Your task to perform on an android device: snooze an email in the gmail app Image 0: 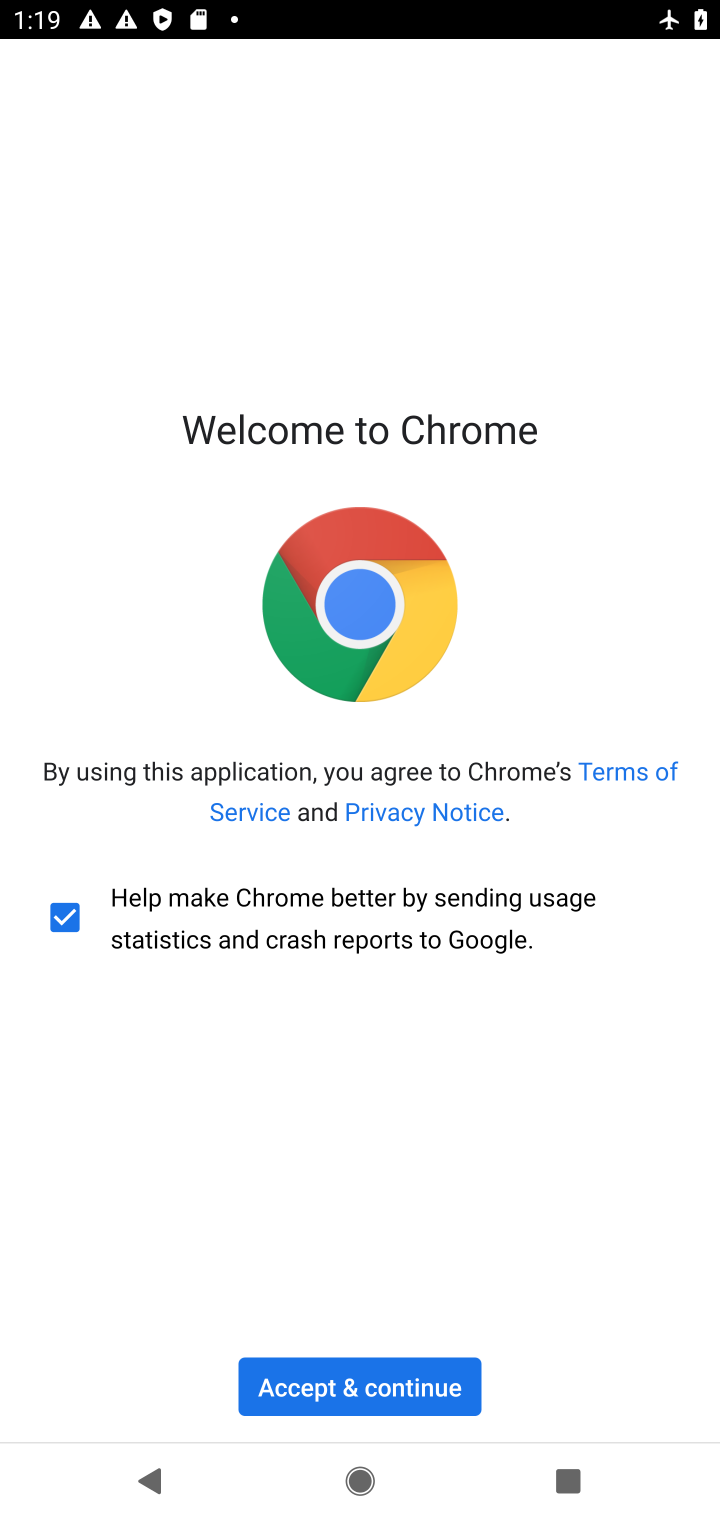
Step 0: press home button
Your task to perform on an android device: snooze an email in the gmail app Image 1: 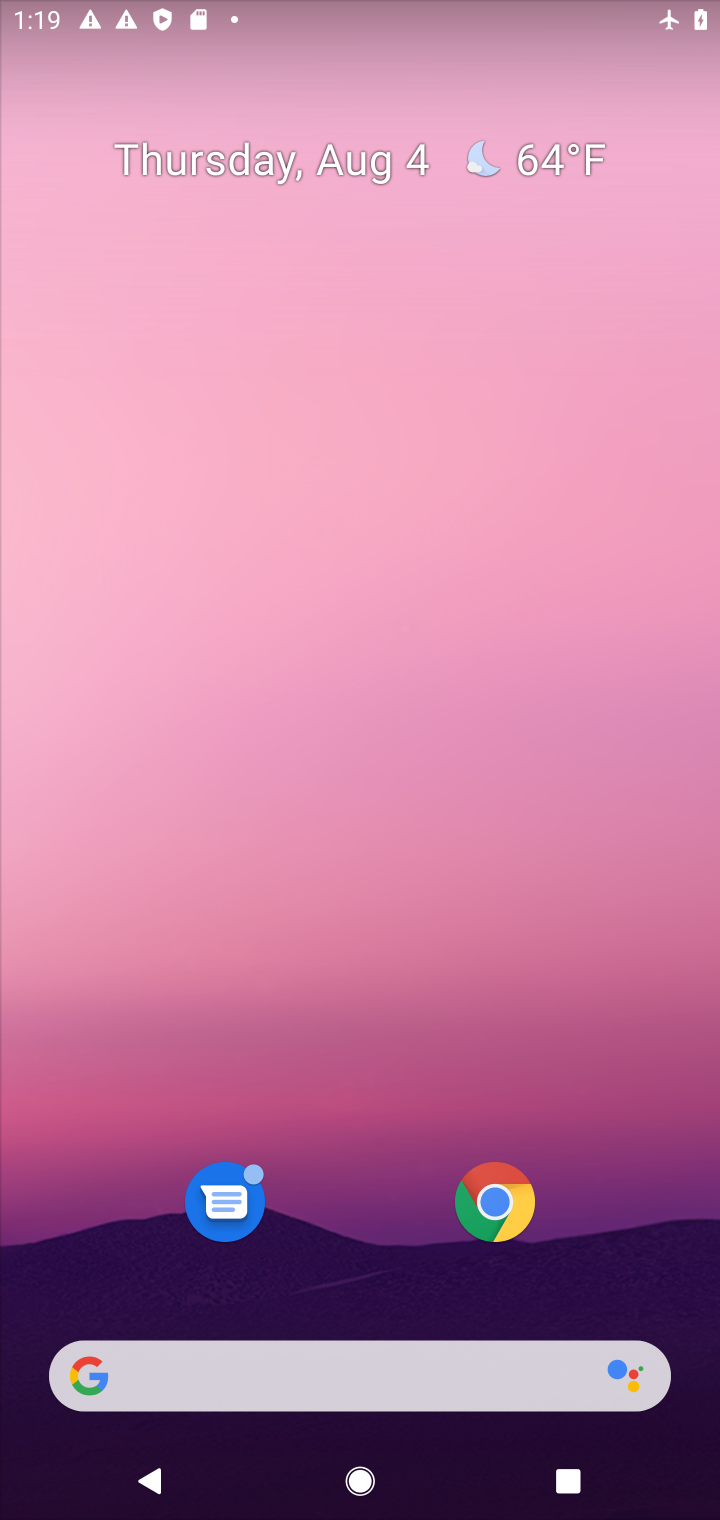
Step 1: drag from (551, 857) to (410, 254)
Your task to perform on an android device: snooze an email in the gmail app Image 2: 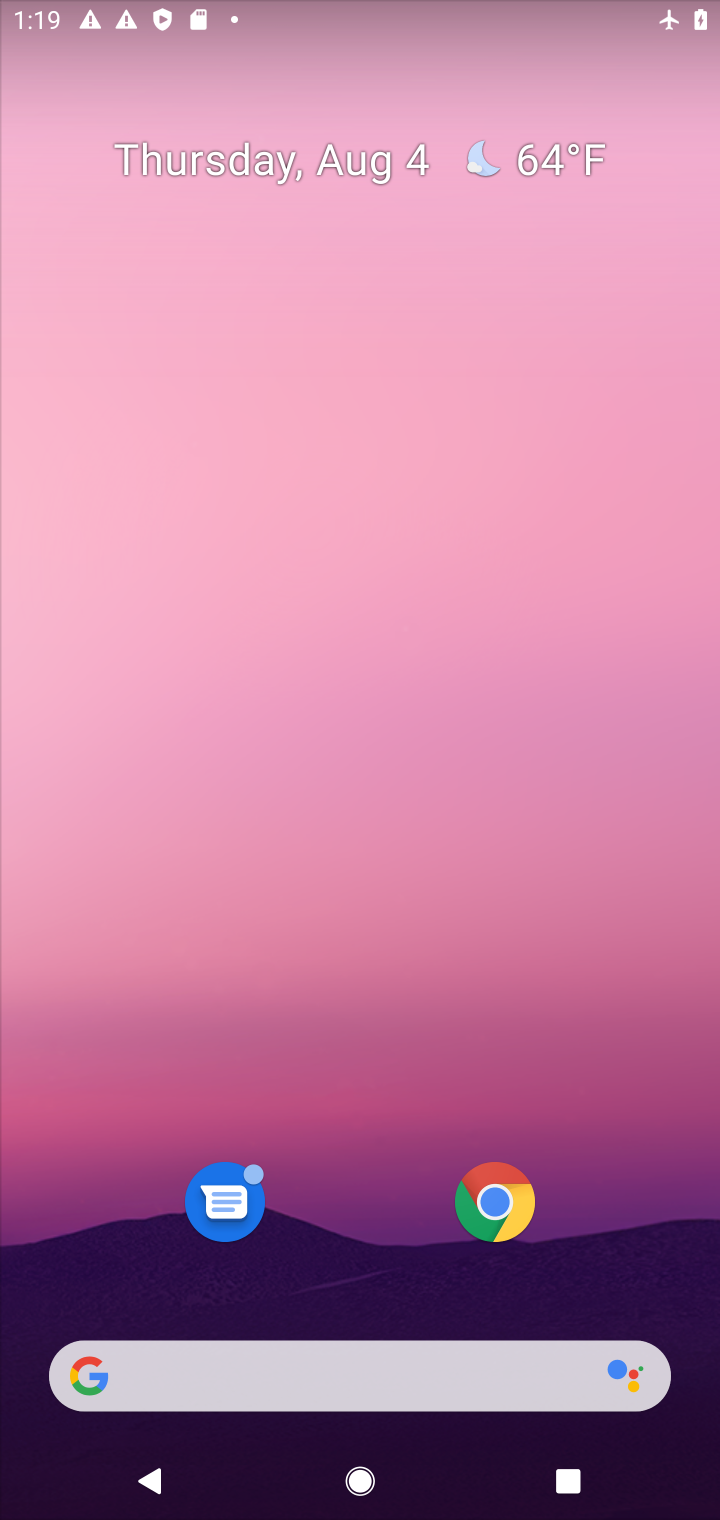
Step 2: drag from (674, 1281) to (385, 166)
Your task to perform on an android device: snooze an email in the gmail app Image 3: 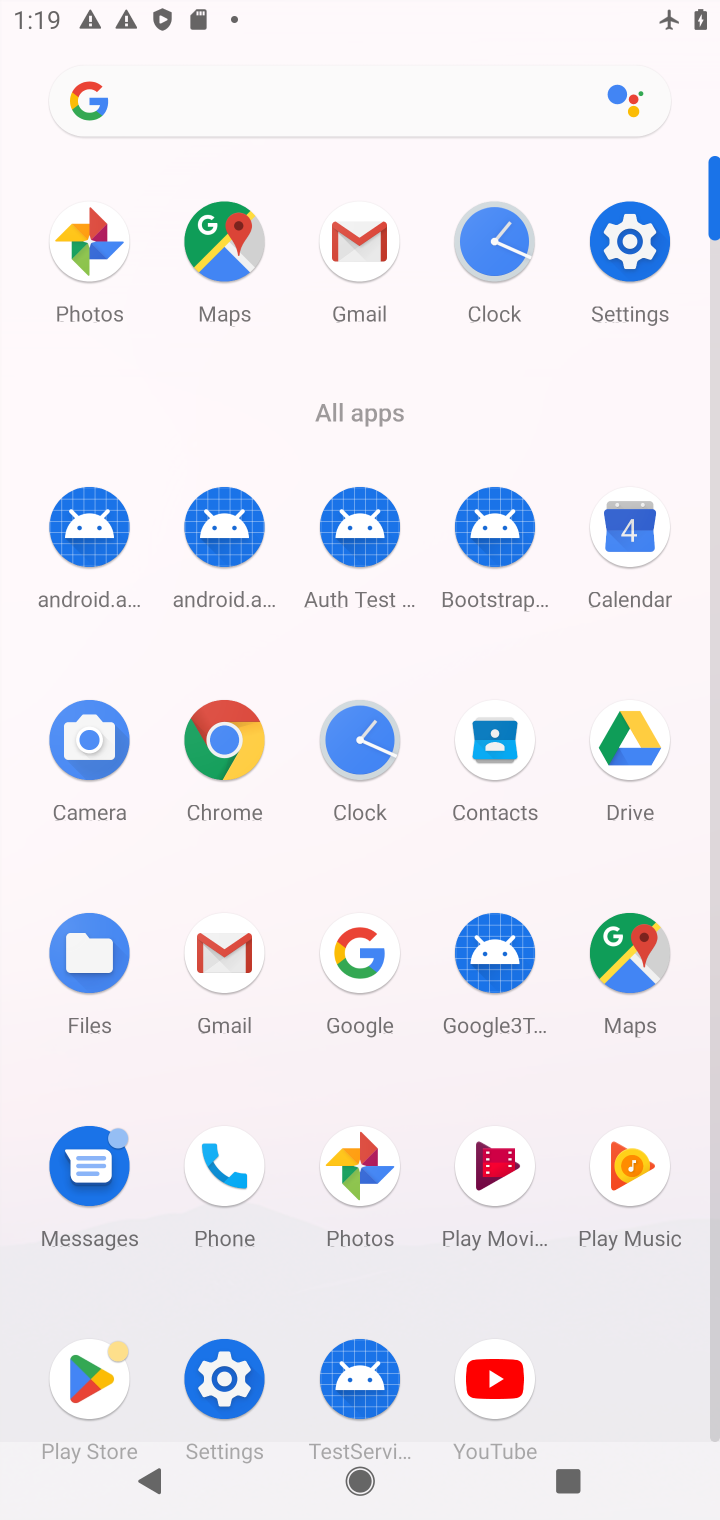
Step 3: click (350, 262)
Your task to perform on an android device: snooze an email in the gmail app Image 4: 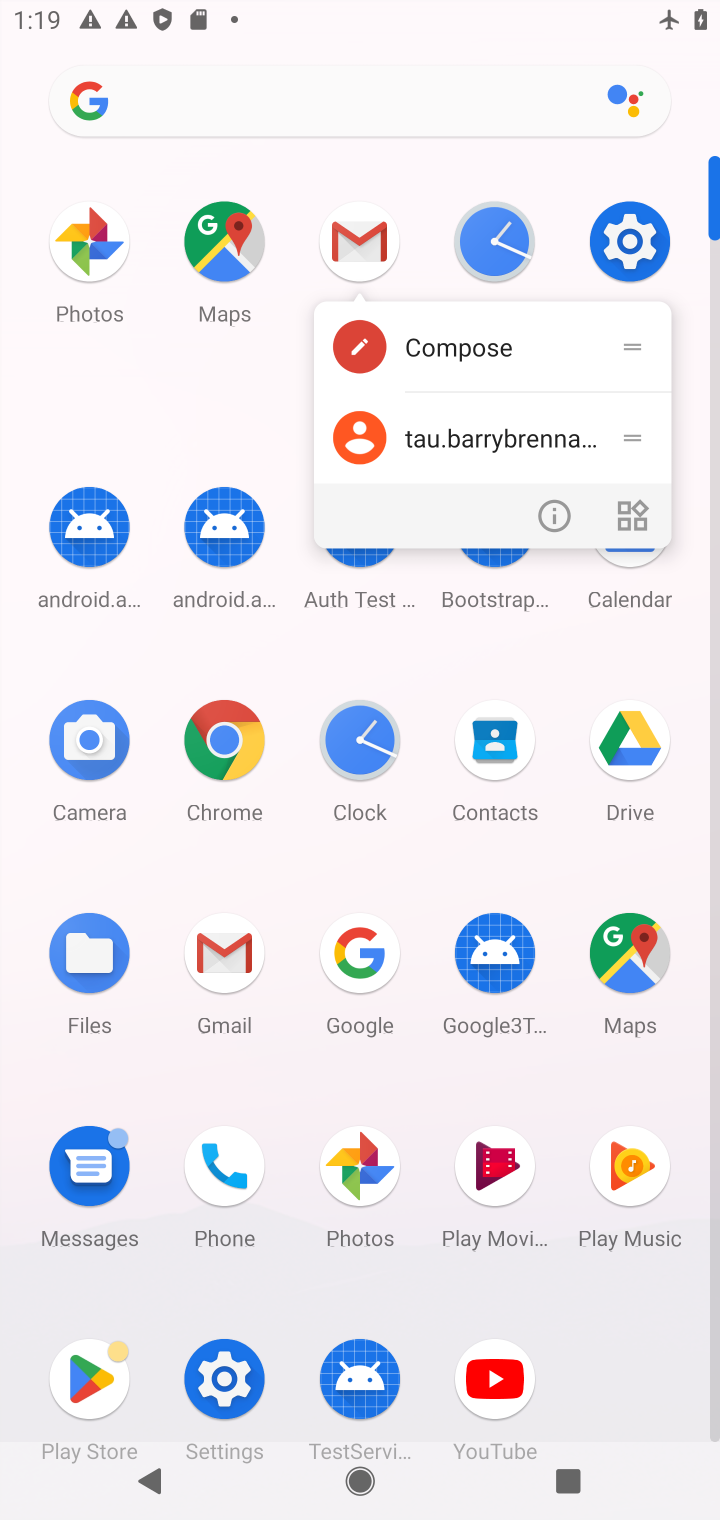
Step 4: click (351, 238)
Your task to perform on an android device: snooze an email in the gmail app Image 5: 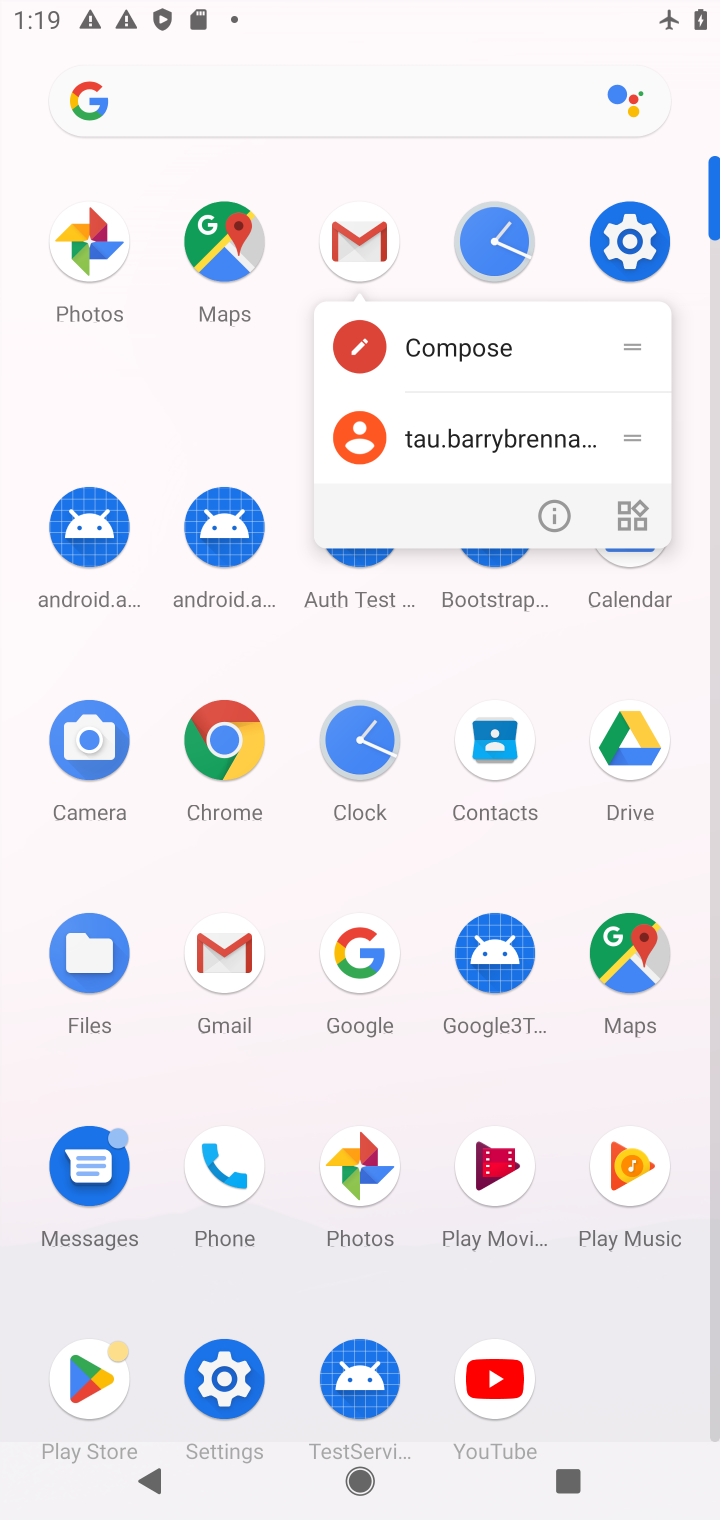
Step 5: click (351, 238)
Your task to perform on an android device: snooze an email in the gmail app Image 6: 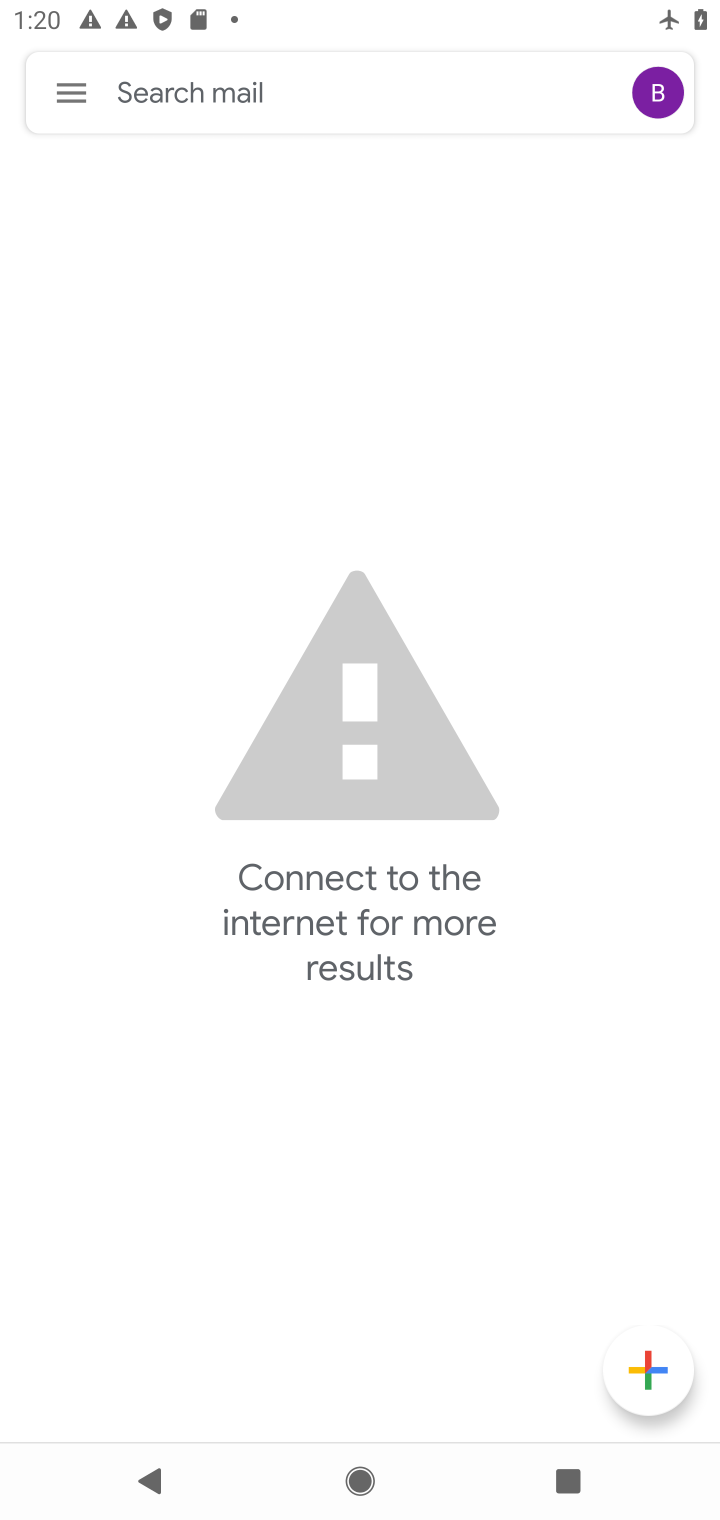
Step 6: click (63, 80)
Your task to perform on an android device: snooze an email in the gmail app Image 7: 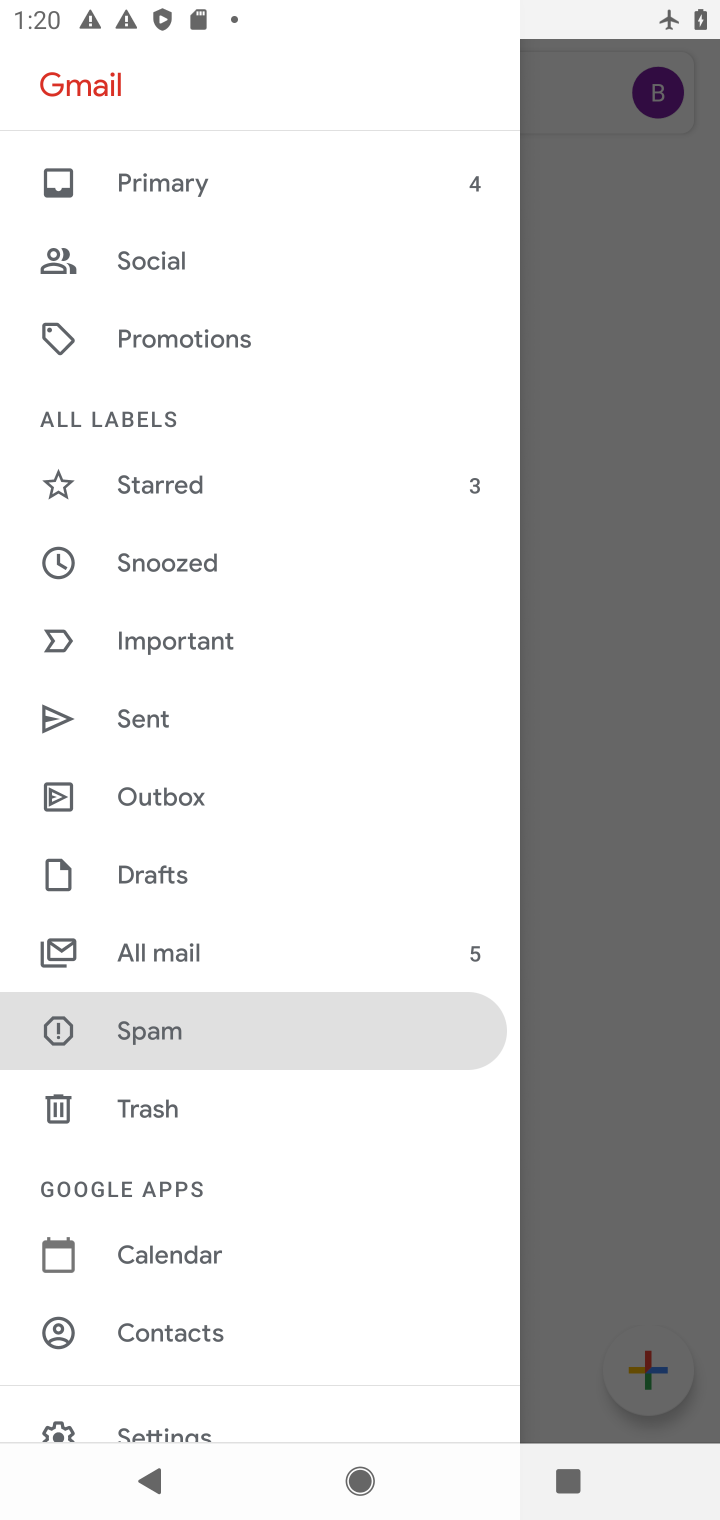
Step 7: click (184, 940)
Your task to perform on an android device: snooze an email in the gmail app Image 8: 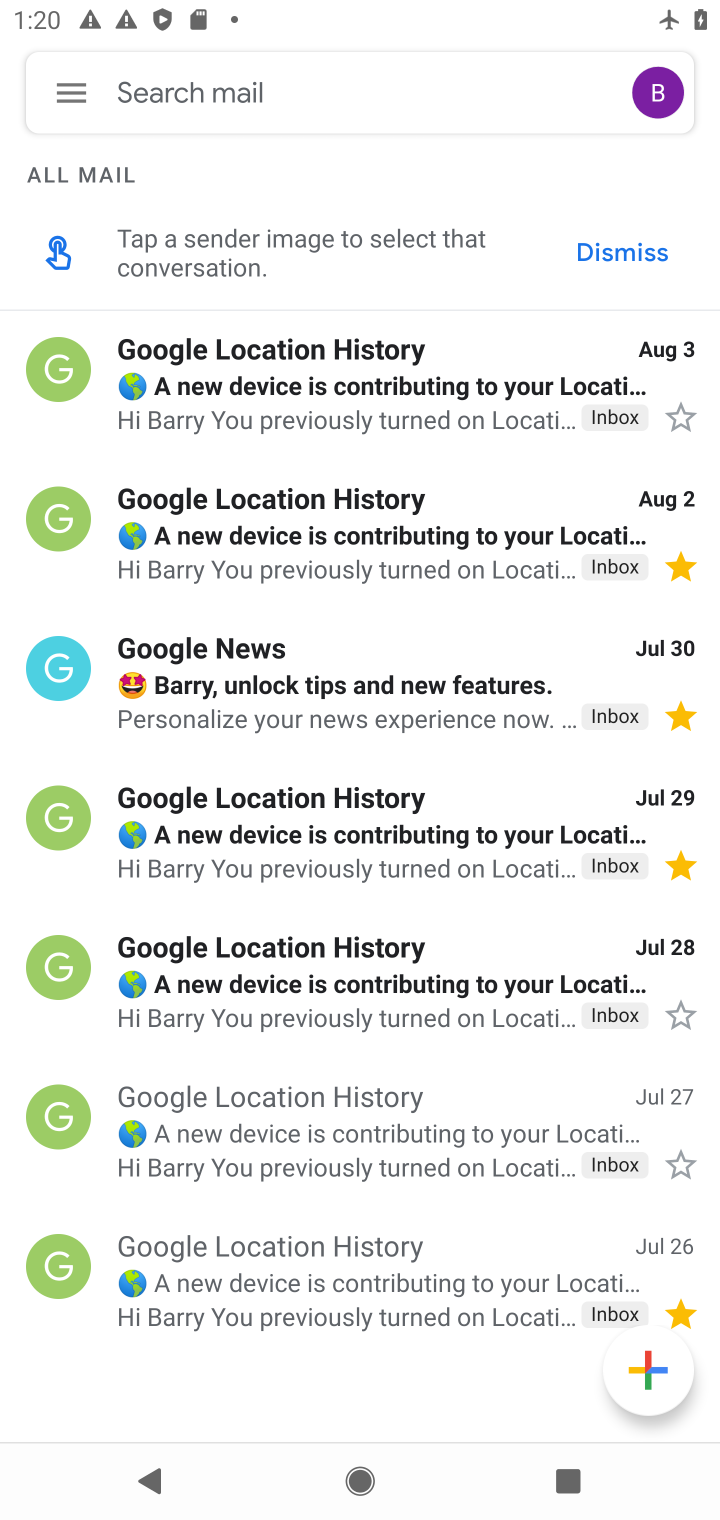
Step 8: click (392, 843)
Your task to perform on an android device: snooze an email in the gmail app Image 9: 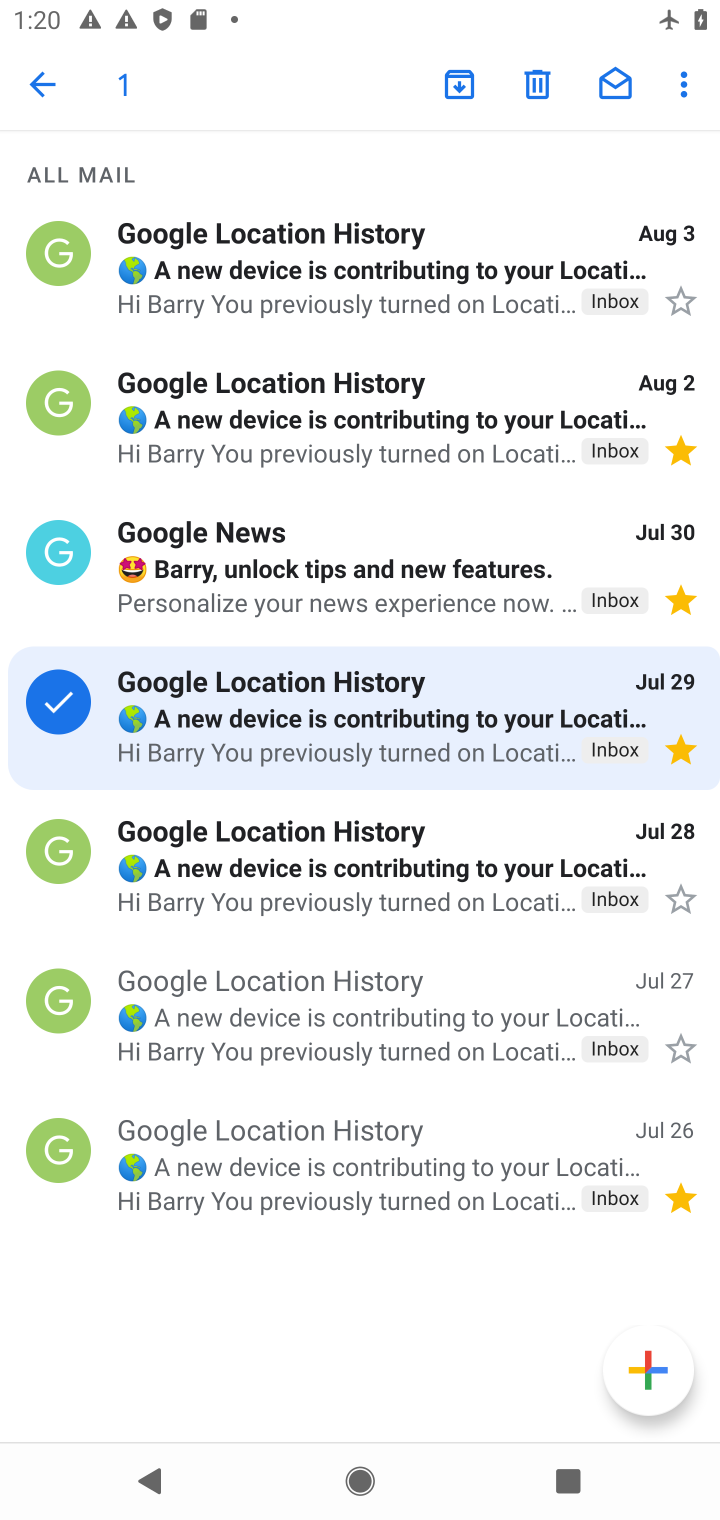
Step 9: click (680, 89)
Your task to perform on an android device: snooze an email in the gmail app Image 10: 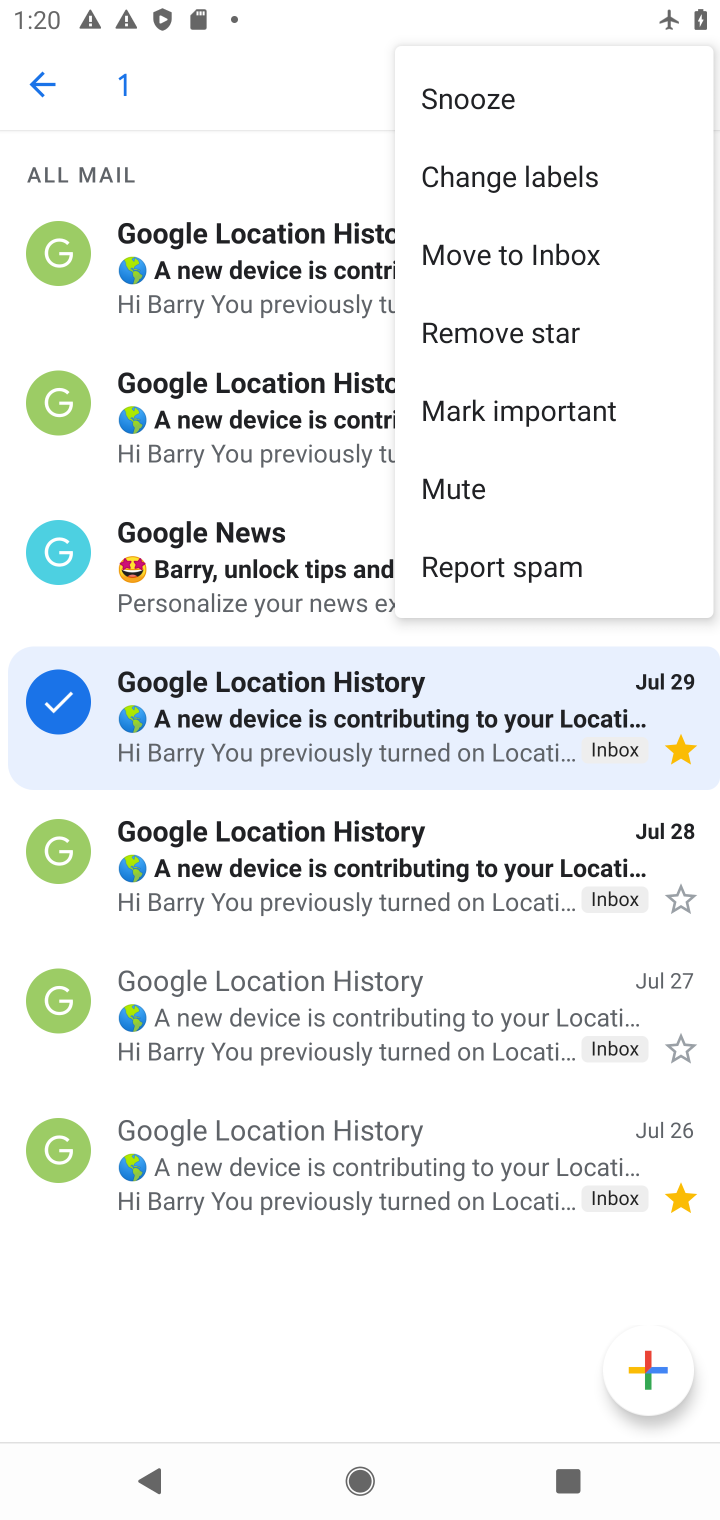
Step 10: click (547, 107)
Your task to perform on an android device: snooze an email in the gmail app Image 11: 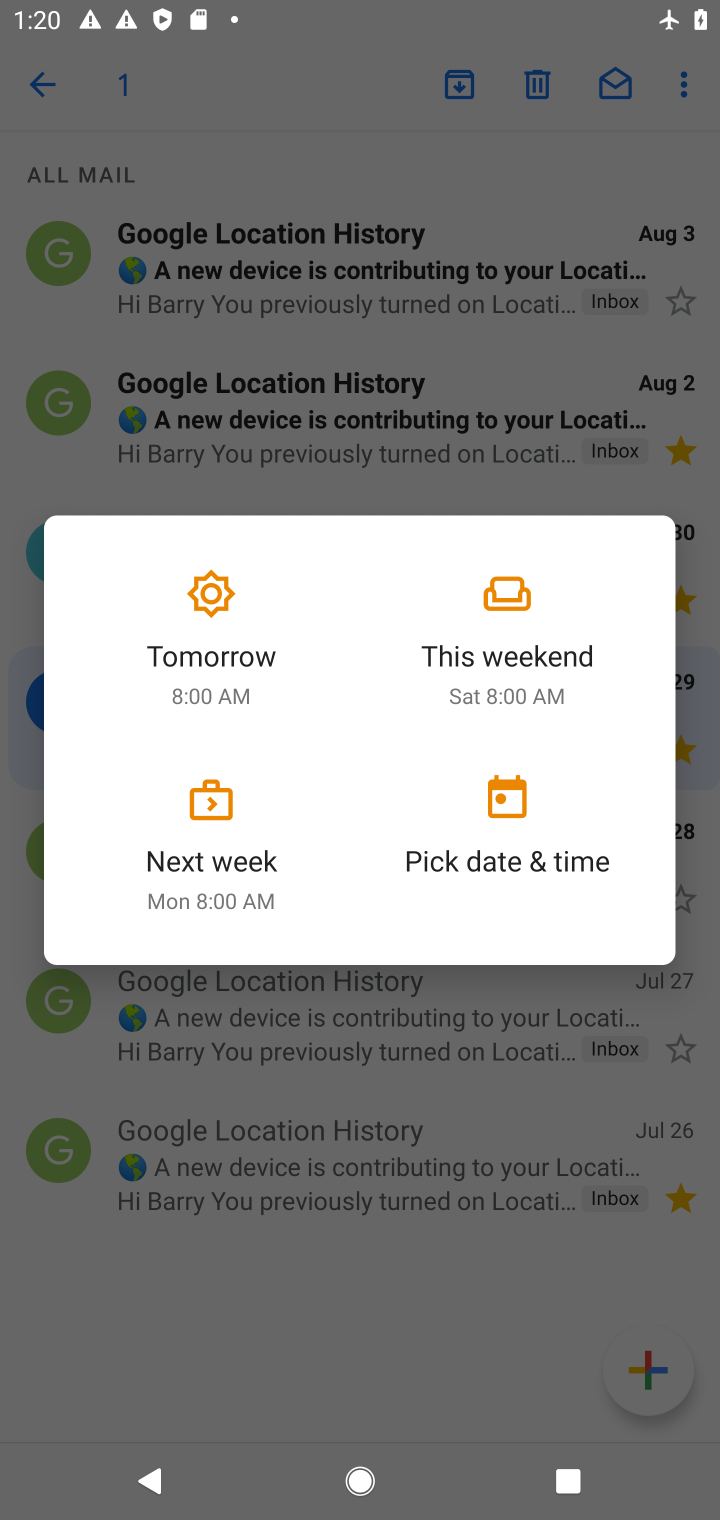
Step 11: click (496, 636)
Your task to perform on an android device: snooze an email in the gmail app Image 12: 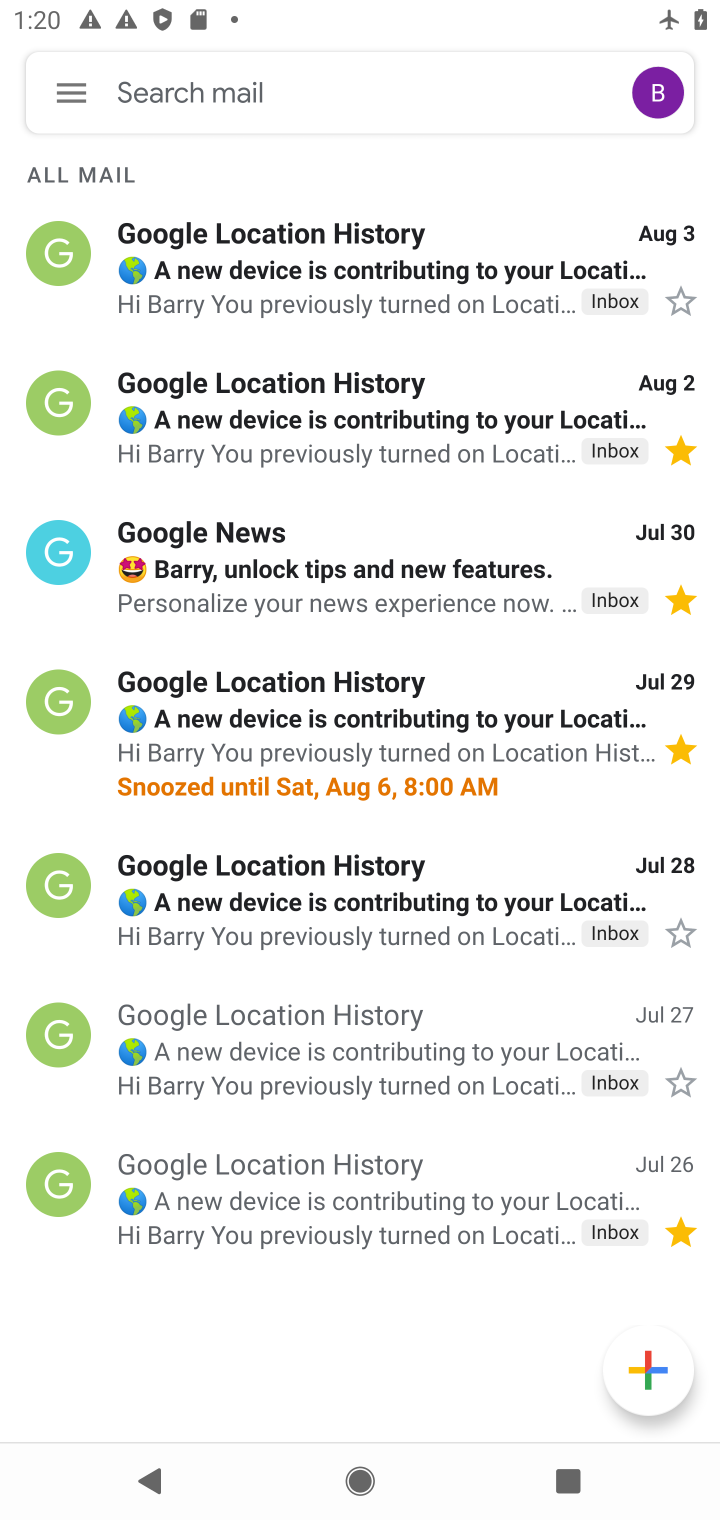
Step 12: task complete